Your task to perform on an android device: turn on improve location accuracy Image 0: 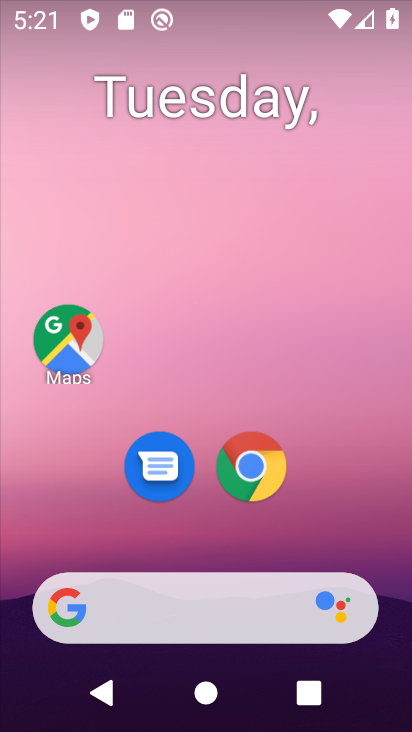
Step 0: drag from (380, 290) to (384, 161)
Your task to perform on an android device: turn on improve location accuracy Image 1: 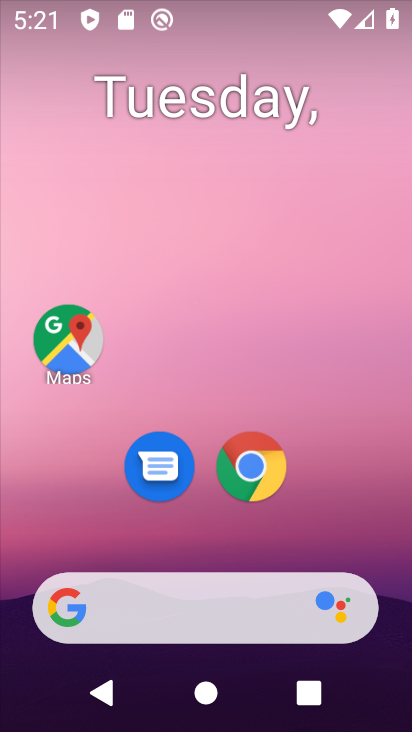
Step 1: drag from (365, 571) to (312, 103)
Your task to perform on an android device: turn on improve location accuracy Image 2: 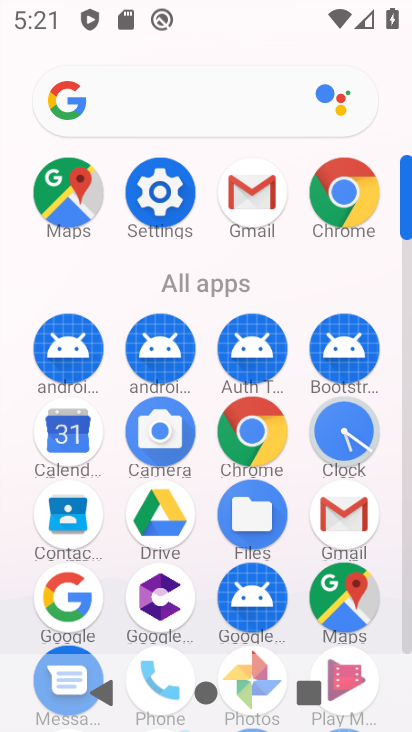
Step 2: click (192, 212)
Your task to perform on an android device: turn on improve location accuracy Image 3: 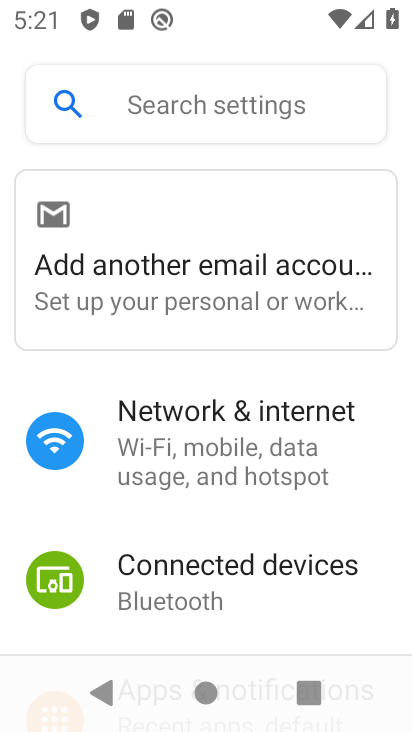
Step 3: drag from (234, 590) to (211, 1)
Your task to perform on an android device: turn on improve location accuracy Image 4: 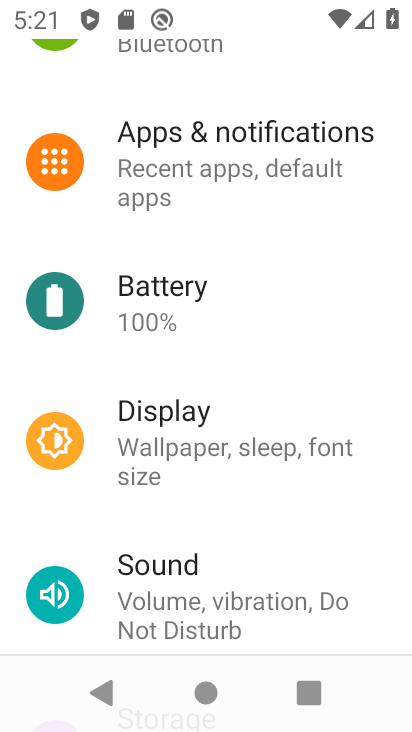
Step 4: drag from (226, 542) to (262, 96)
Your task to perform on an android device: turn on improve location accuracy Image 5: 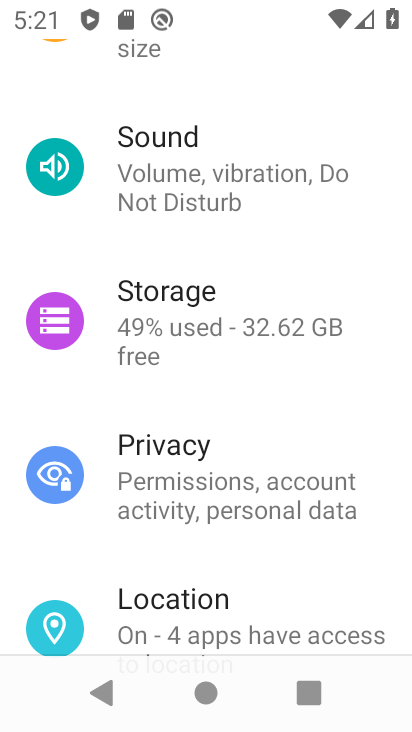
Step 5: drag from (264, 561) to (266, 211)
Your task to perform on an android device: turn on improve location accuracy Image 6: 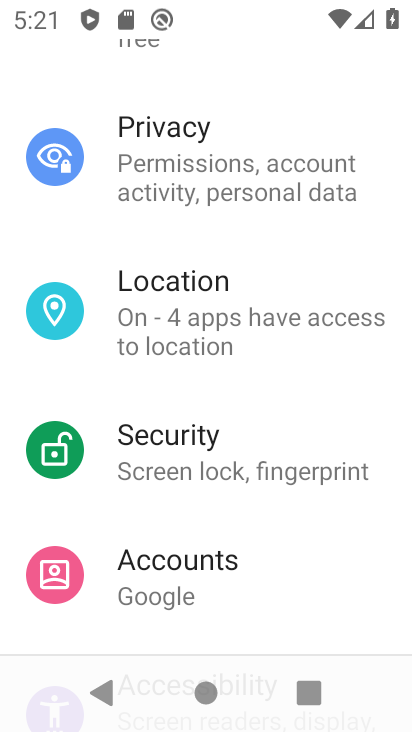
Step 6: click (264, 327)
Your task to perform on an android device: turn on improve location accuracy Image 7: 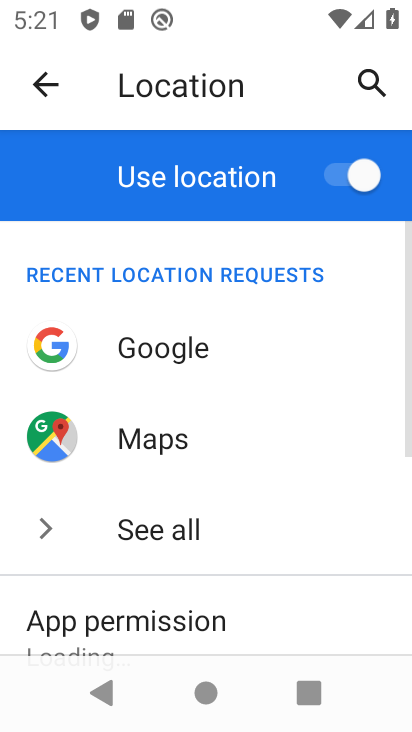
Step 7: drag from (237, 506) to (195, 154)
Your task to perform on an android device: turn on improve location accuracy Image 8: 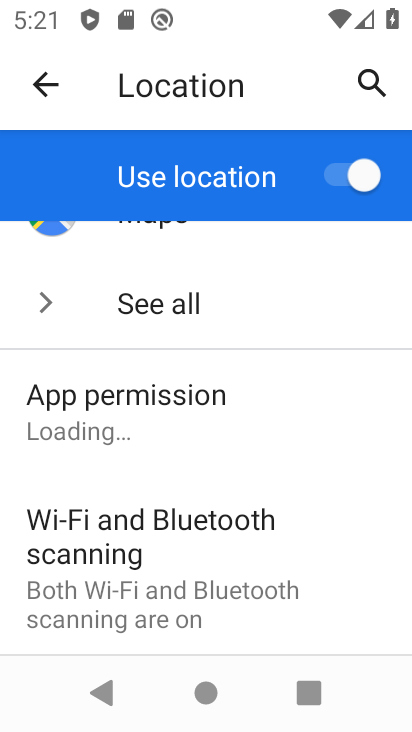
Step 8: drag from (187, 655) to (233, 169)
Your task to perform on an android device: turn on improve location accuracy Image 9: 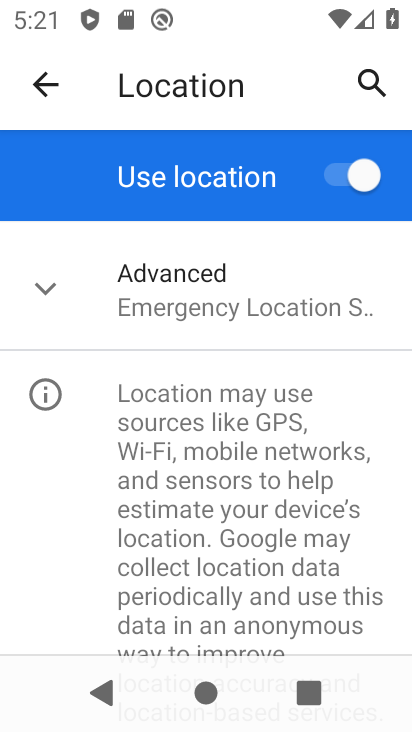
Step 9: click (215, 305)
Your task to perform on an android device: turn on improve location accuracy Image 10: 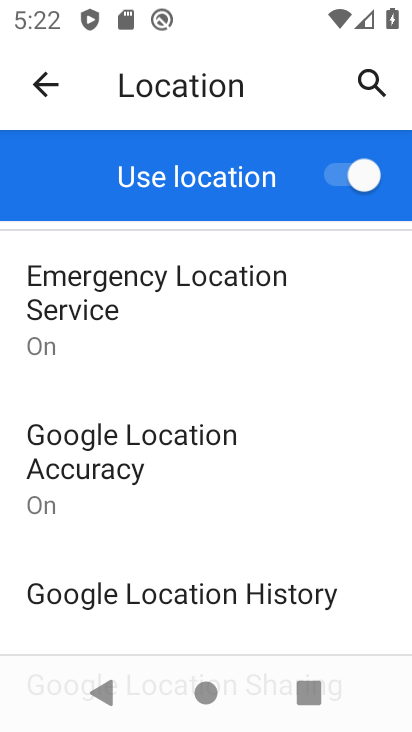
Step 10: click (71, 474)
Your task to perform on an android device: turn on improve location accuracy Image 11: 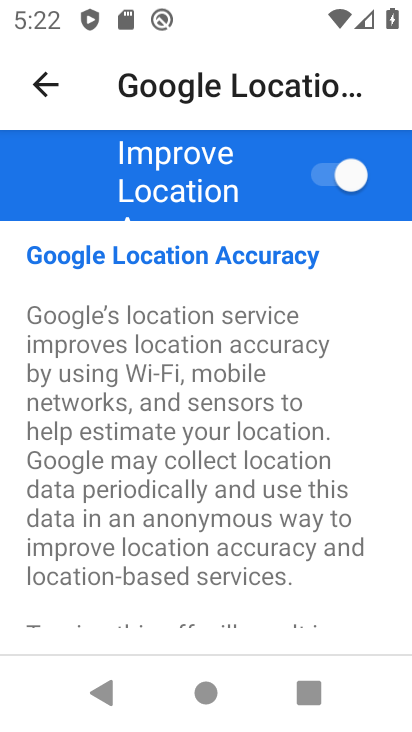
Step 11: task complete